Your task to perform on an android device: allow cookies in the chrome app Image 0: 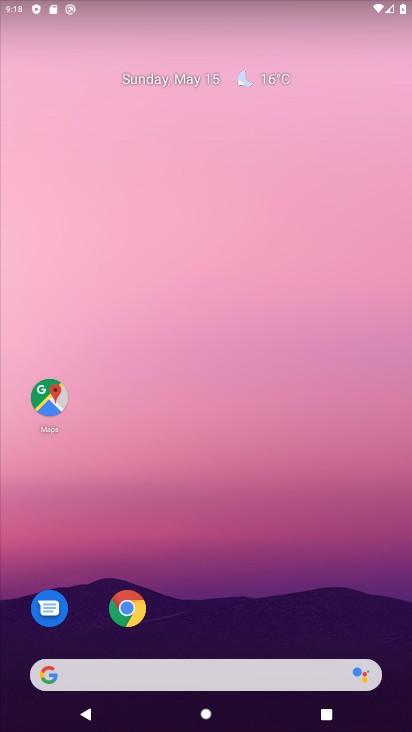
Step 0: click (123, 607)
Your task to perform on an android device: allow cookies in the chrome app Image 1: 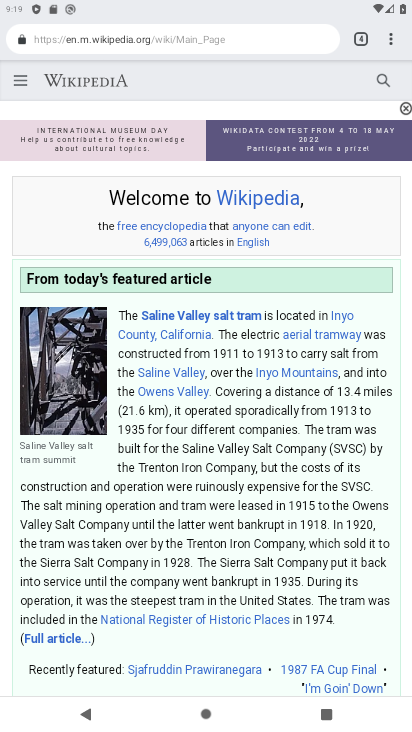
Step 1: click (388, 38)
Your task to perform on an android device: allow cookies in the chrome app Image 2: 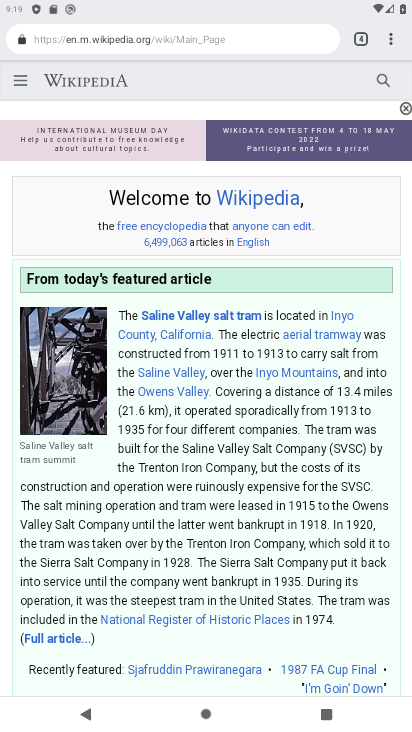
Step 2: click (387, 37)
Your task to perform on an android device: allow cookies in the chrome app Image 3: 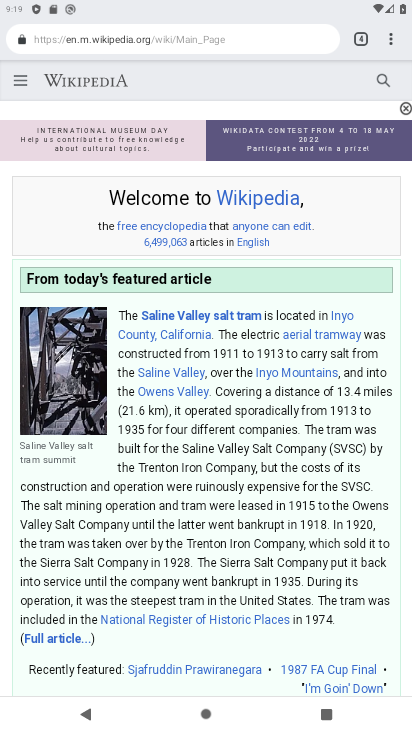
Step 3: drag from (387, 42) to (246, 474)
Your task to perform on an android device: allow cookies in the chrome app Image 4: 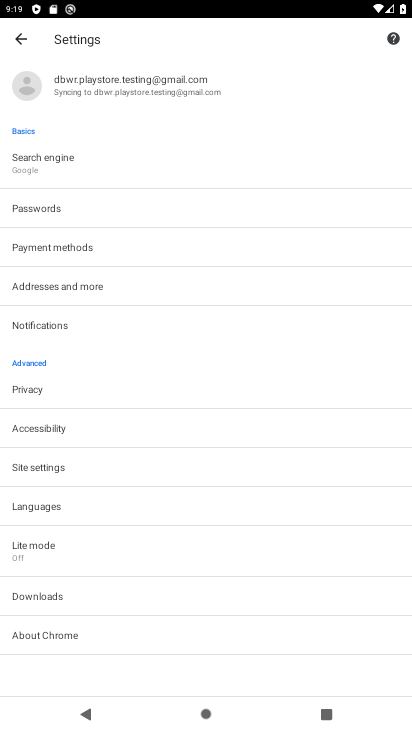
Step 4: click (58, 467)
Your task to perform on an android device: allow cookies in the chrome app Image 5: 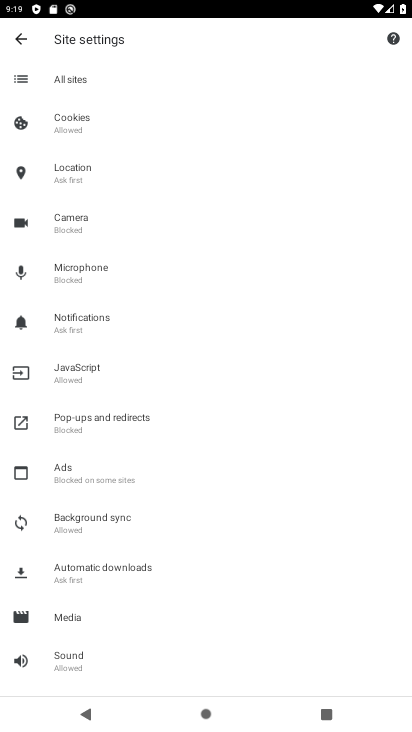
Step 5: click (75, 110)
Your task to perform on an android device: allow cookies in the chrome app Image 6: 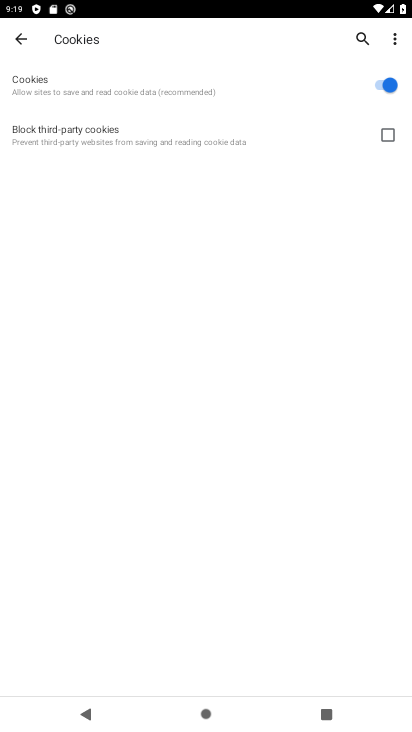
Step 6: task complete